Your task to perform on an android device: Open Chrome and go to settings Image 0: 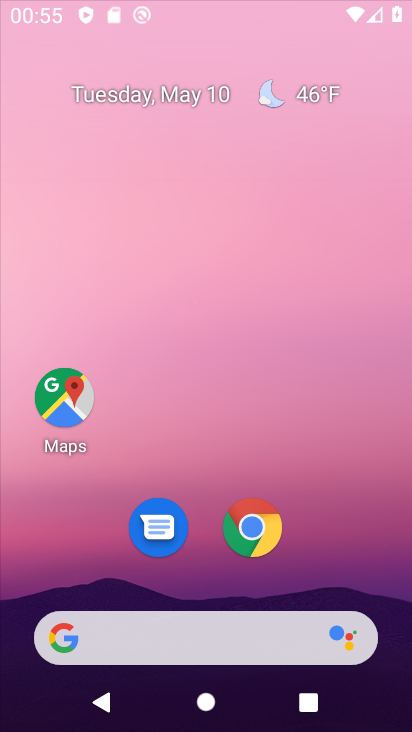
Step 0: click (234, 544)
Your task to perform on an android device: Open Chrome and go to settings Image 1: 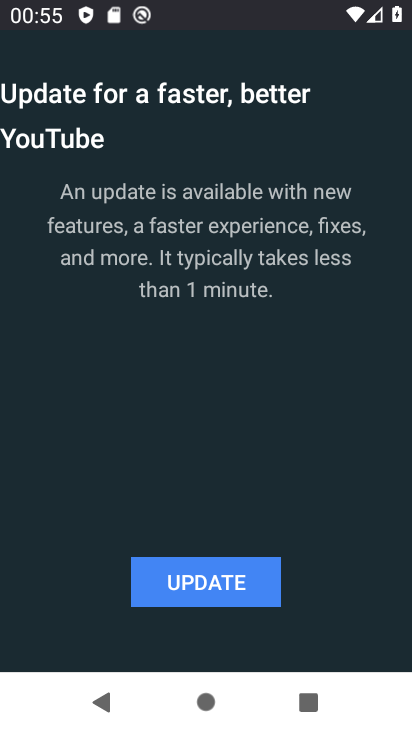
Step 1: press back button
Your task to perform on an android device: Open Chrome and go to settings Image 2: 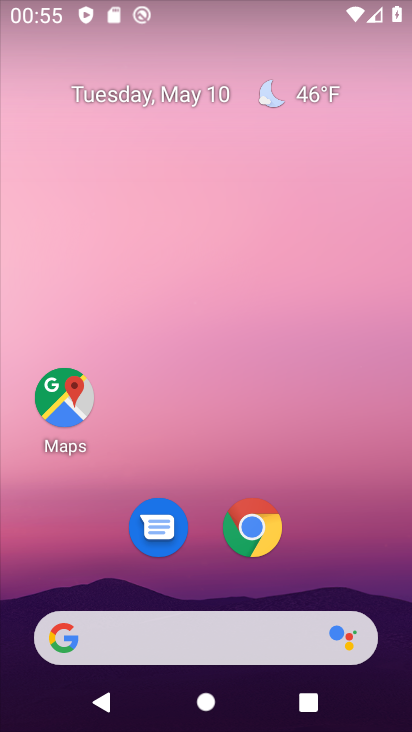
Step 2: click (245, 556)
Your task to perform on an android device: Open Chrome and go to settings Image 3: 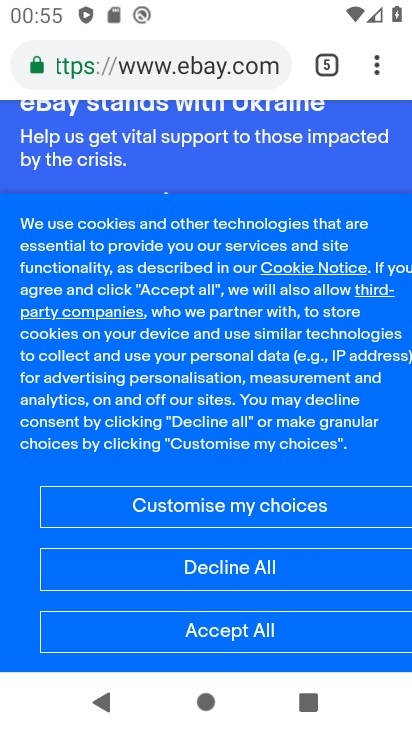
Step 3: task complete